Your task to perform on an android device: turn on the 12-hour format for clock Image 0: 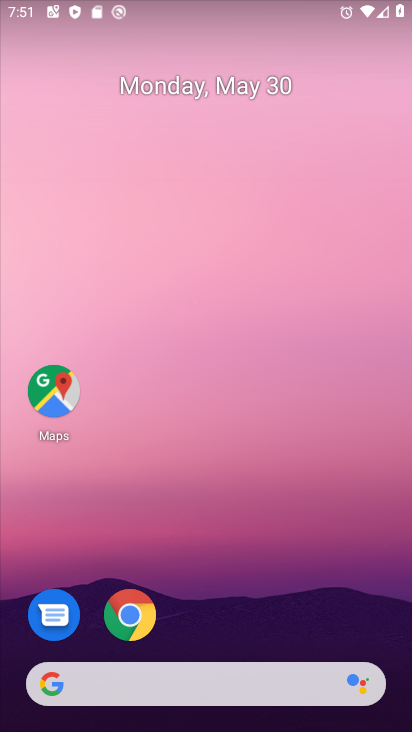
Step 0: drag from (277, 590) to (229, 0)
Your task to perform on an android device: turn on the 12-hour format for clock Image 1: 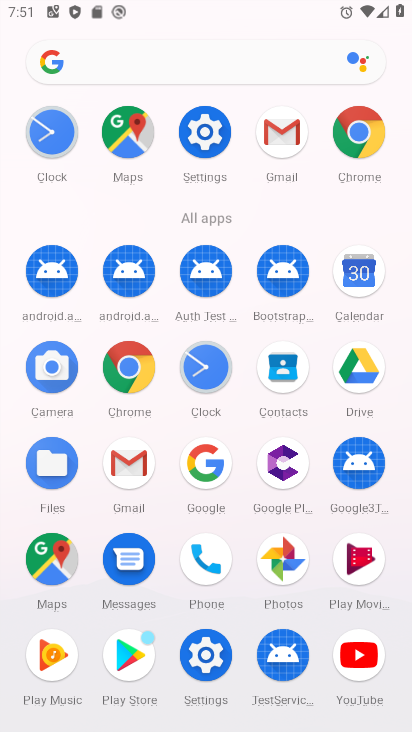
Step 1: click (210, 385)
Your task to perform on an android device: turn on the 12-hour format for clock Image 2: 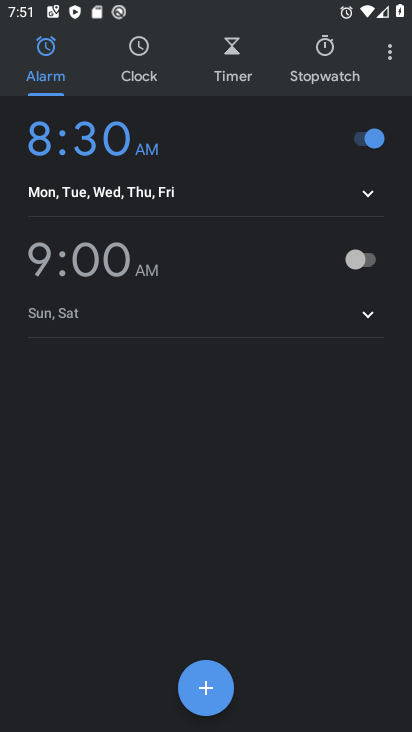
Step 2: click (394, 52)
Your task to perform on an android device: turn on the 12-hour format for clock Image 3: 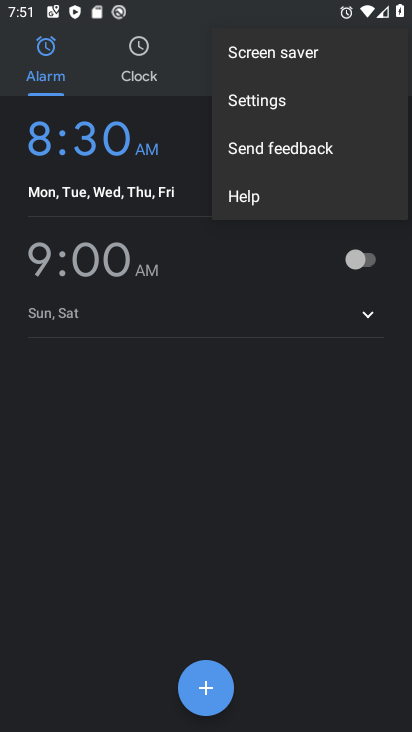
Step 3: click (244, 98)
Your task to perform on an android device: turn on the 12-hour format for clock Image 4: 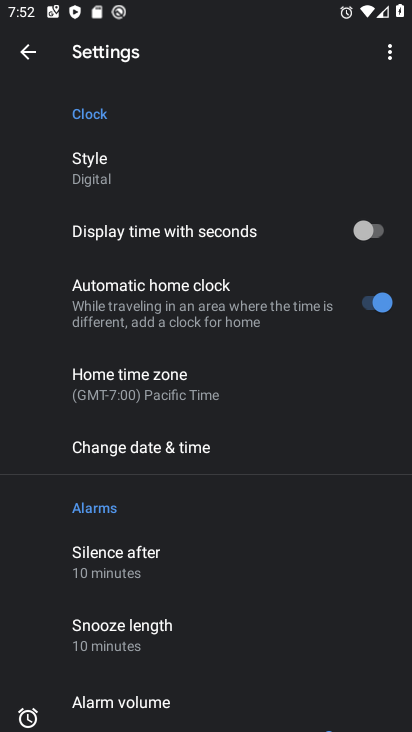
Step 4: click (119, 451)
Your task to perform on an android device: turn on the 12-hour format for clock Image 5: 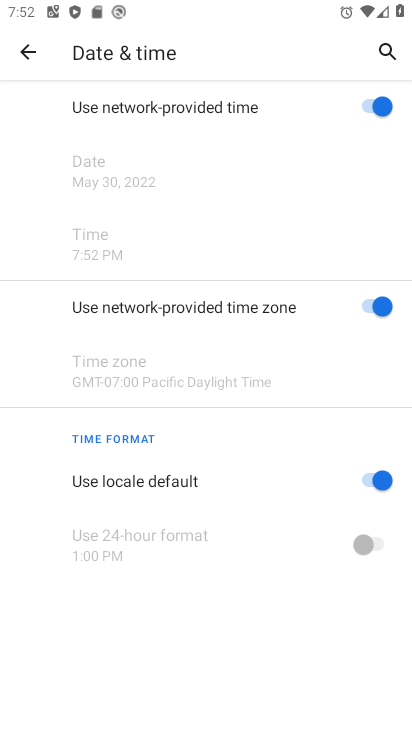
Step 5: task complete